Your task to perform on an android device: What is the news today? Image 0: 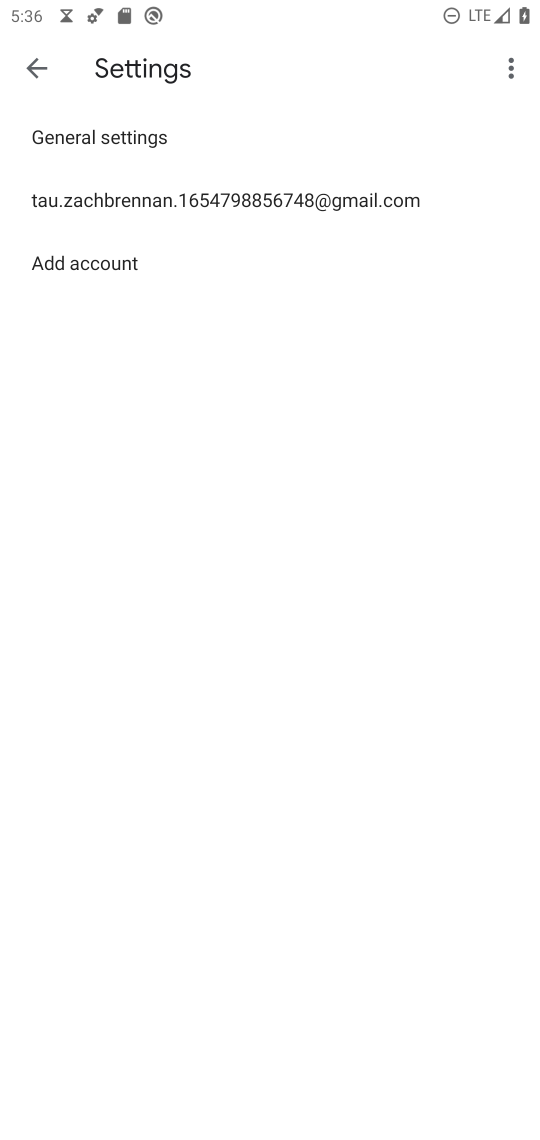
Step 0: press home button
Your task to perform on an android device: What is the news today? Image 1: 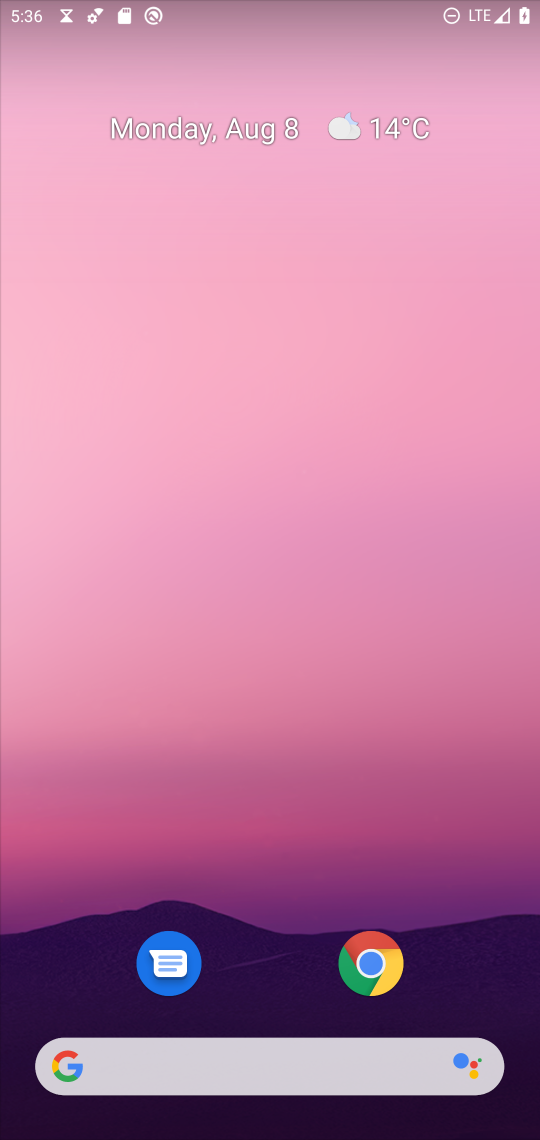
Step 1: click (248, 1070)
Your task to perform on an android device: What is the news today? Image 2: 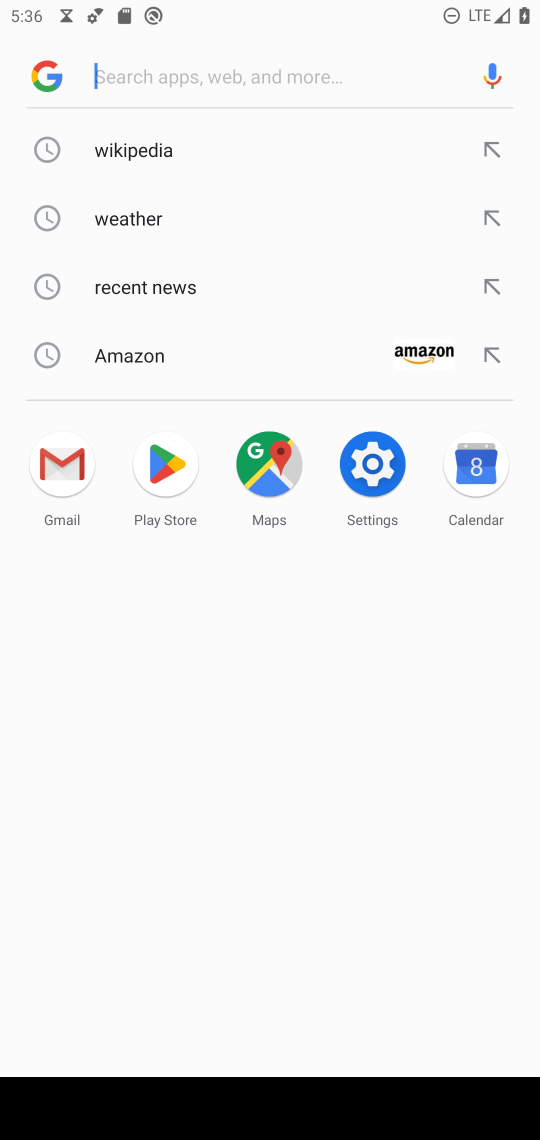
Step 2: type "what is the news today"
Your task to perform on an android device: What is the news today? Image 3: 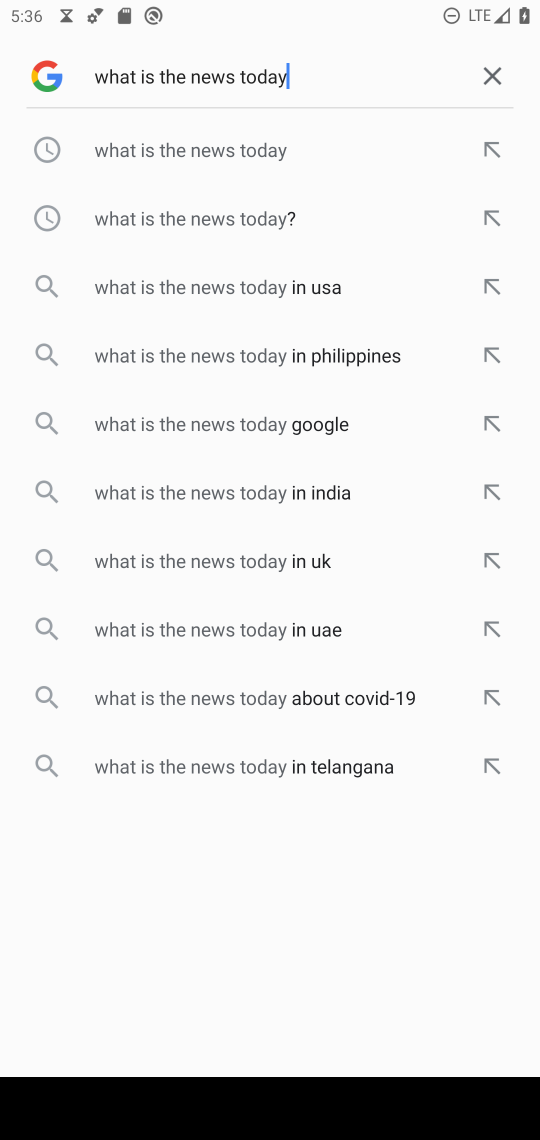
Step 3: click (249, 218)
Your task to perform on an android device: What is the news today? Image 4: 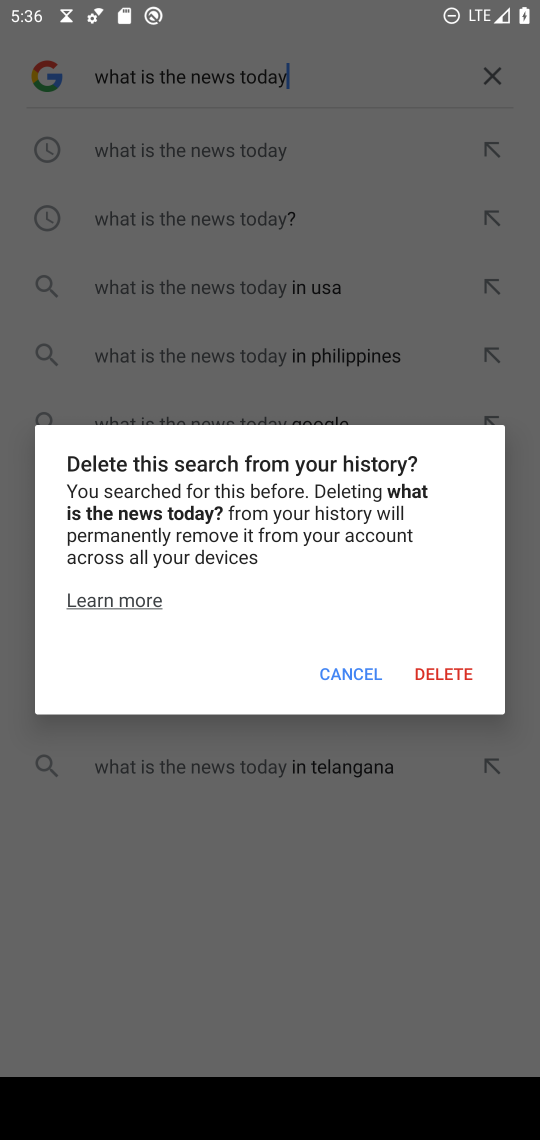
Step 4: click (366, 666)
Your task to perform on an android device: What is the news today? Image 5: 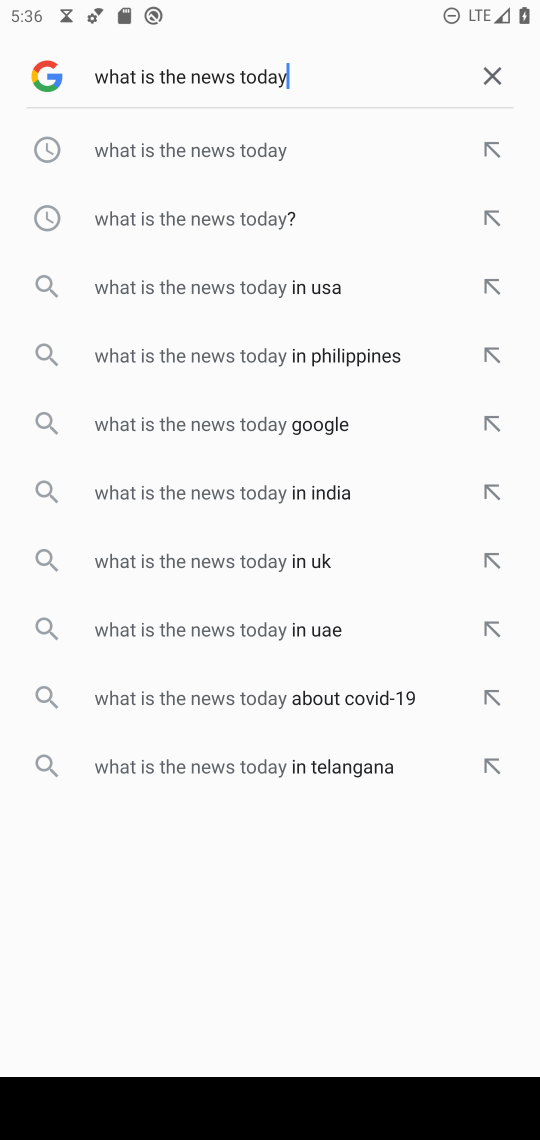
Step 5: click (195, 212)
Your task to perform on an android device: What is the news today? Image 6: 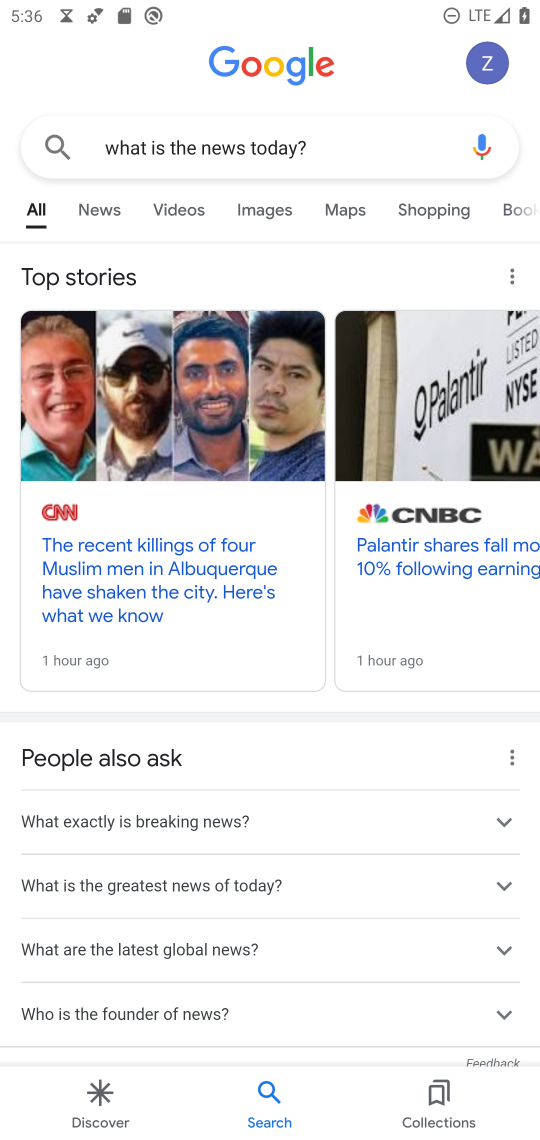
Step 6: task complete